Your task to perform on an android device: open chrome privacy settings Image 0: 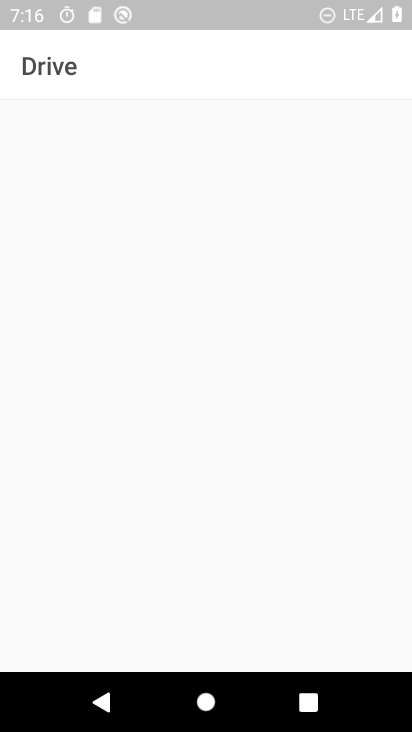
Step 0: press home button
Your task to perform on an android device: open chrome privacy settings Image 1: 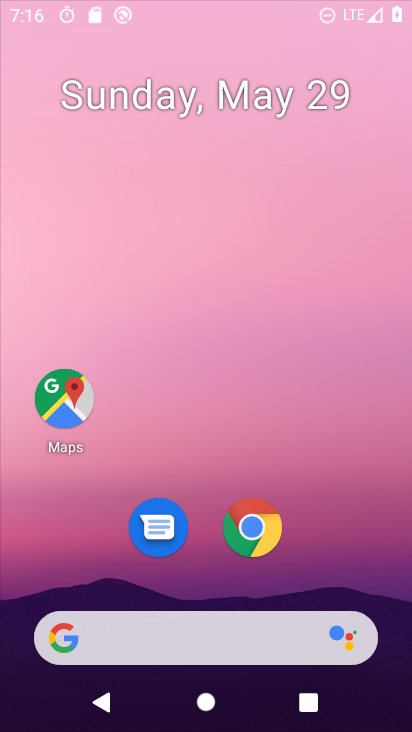
Step 1: drag from (321, 563) to (251, 4)
Your task to perform on an android device: open chrome privacy settings Image 2: 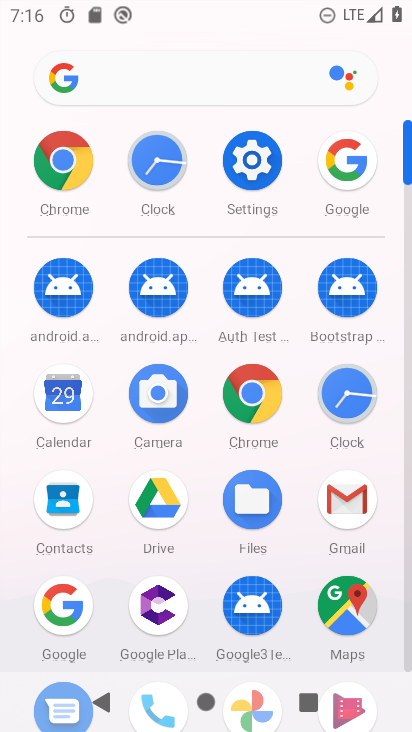
Step 2: click (262, 155)
Your task to perform on an android device: open chrome privacy settings Image 3: 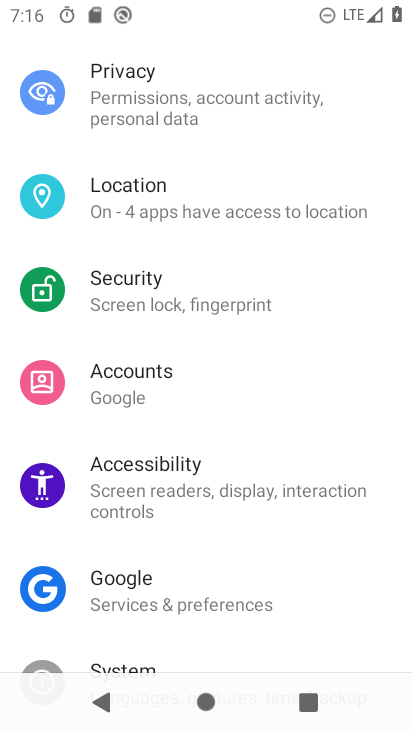
Step 3: click (149, 112)
Your task to perform on an android device: open chrome privacy settings Image 4: 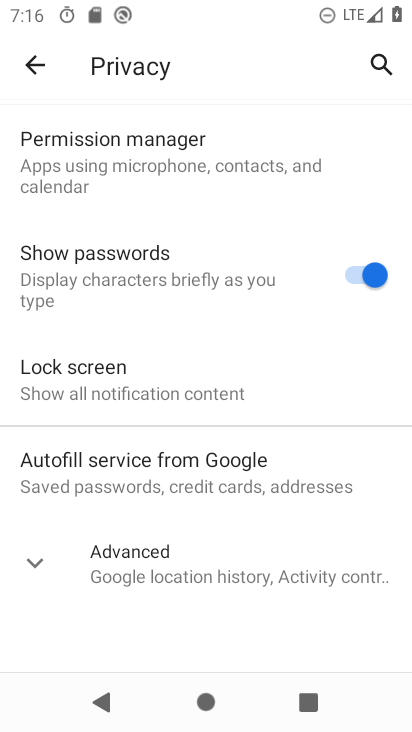
Step 4: task complete